Your task to perform on an android device: Open Google Maps and go to "Timeline" Image 0: 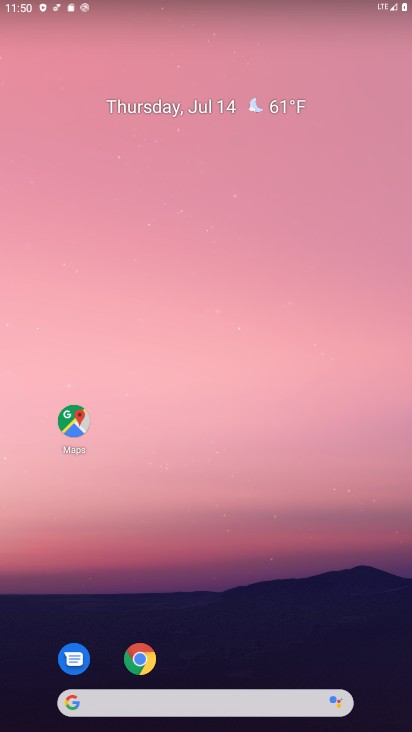
Step 0: click (75, 424)
Your task to perform on an android device: Open Google Maps and go to "Timeline" Image 1: 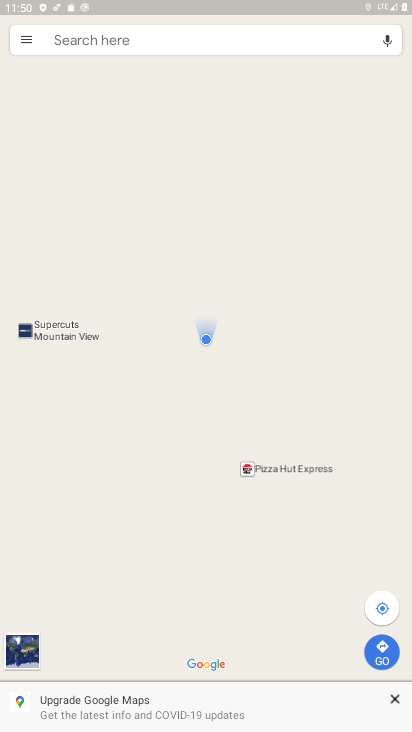
Step 1: click (28, 38)
Your task to perform on an android device: Open Google Maps and go to "Timeline" Image 2: 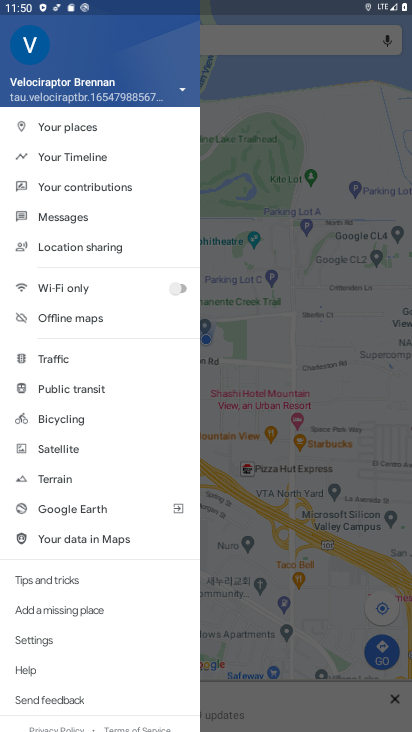
Step 2: click (74, 159)
Your task to perform on an android device: Open Google Maps and go to "Timeline" Image 3: 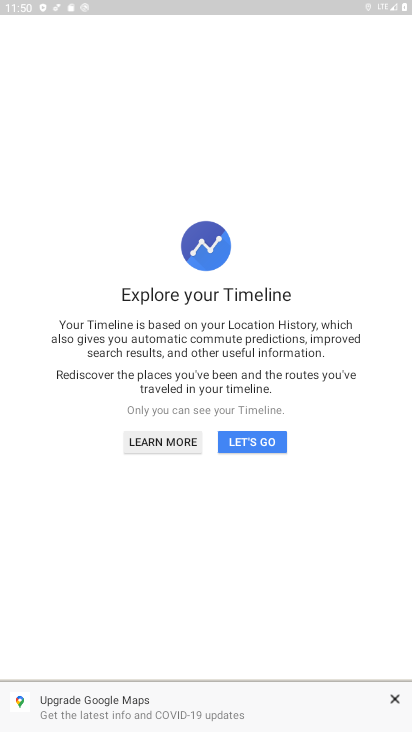
Step 3: click (268, 443)
Your task to perform on an android device: Open Google Maps and go to "Timeline" Image 4: 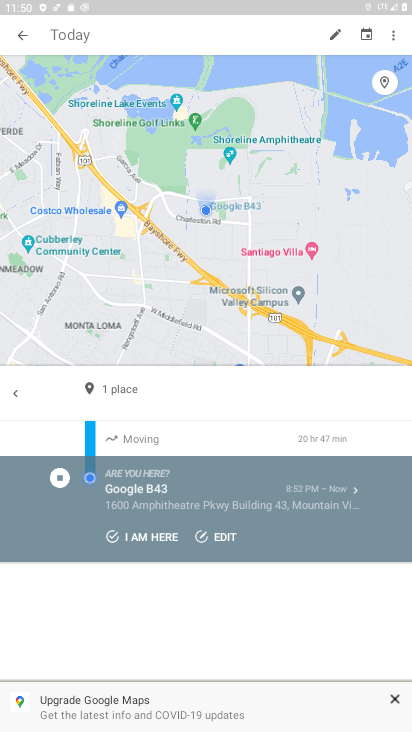
Step 4: task complete